Your task to perform on an android device: open app "Messenger Lite" (install if not already installed) and enter user name: "cataclysmic@outlook.com" and password: "victoriously" Image 0: 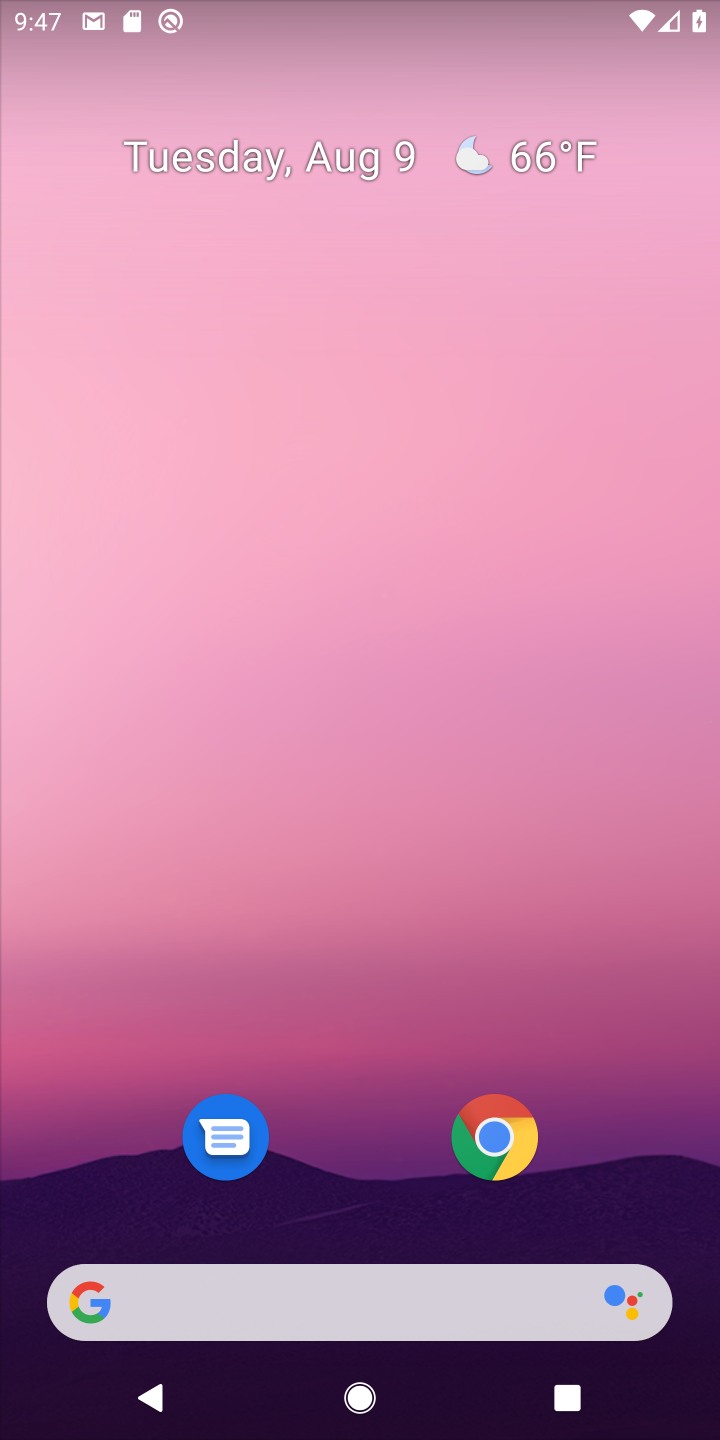
Step 0: drag from (400, 655) to (434, 391)
Your task to perform on an android device: open app "Messenger Lite" (install if not already installed) and enter user name: "cataclysmic@outlook.com" and password: "victoriously" Image 1: 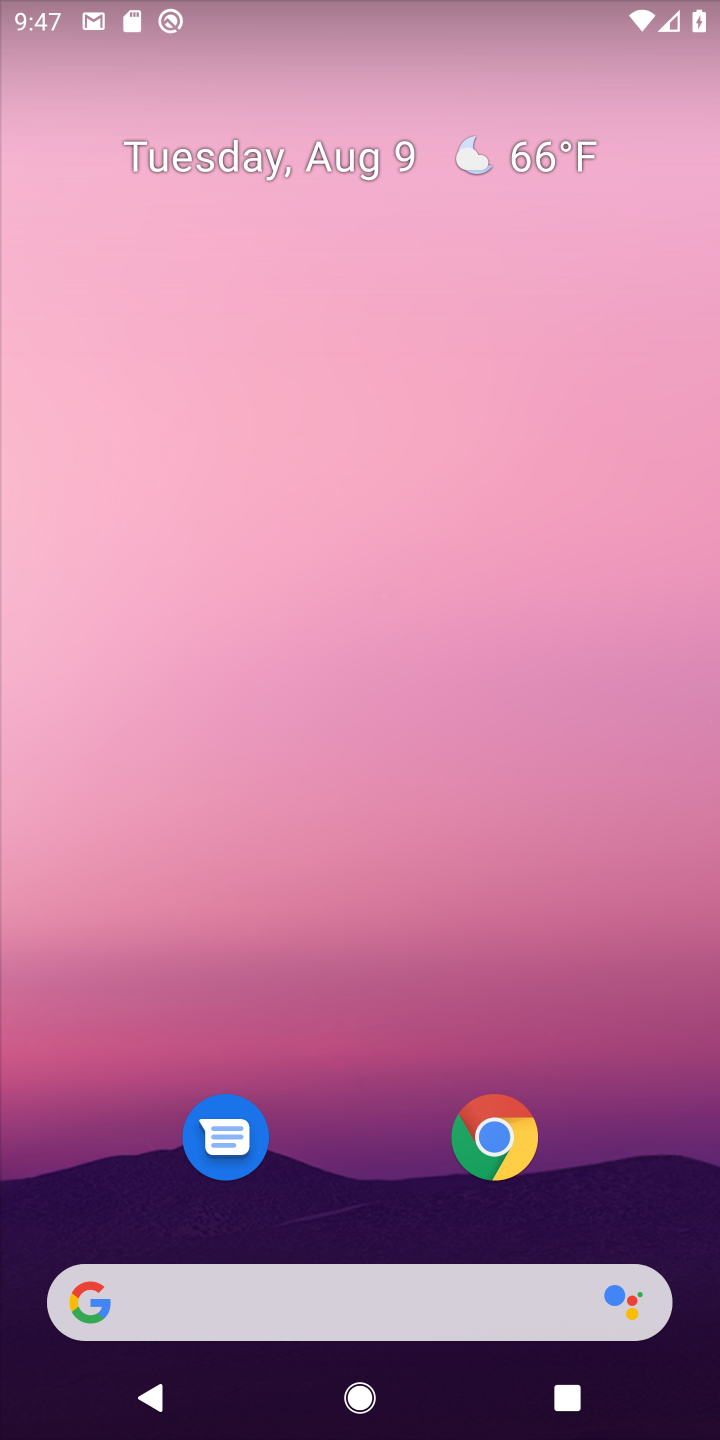
Step 1: drag from (331, 1087) to (416, 352)
Your task to perform on an android device: open app "Messenger Lite" (install if not already installed) and enter user name: "cataclysmic@outlook.com" and password: "victoriously" Image 2: 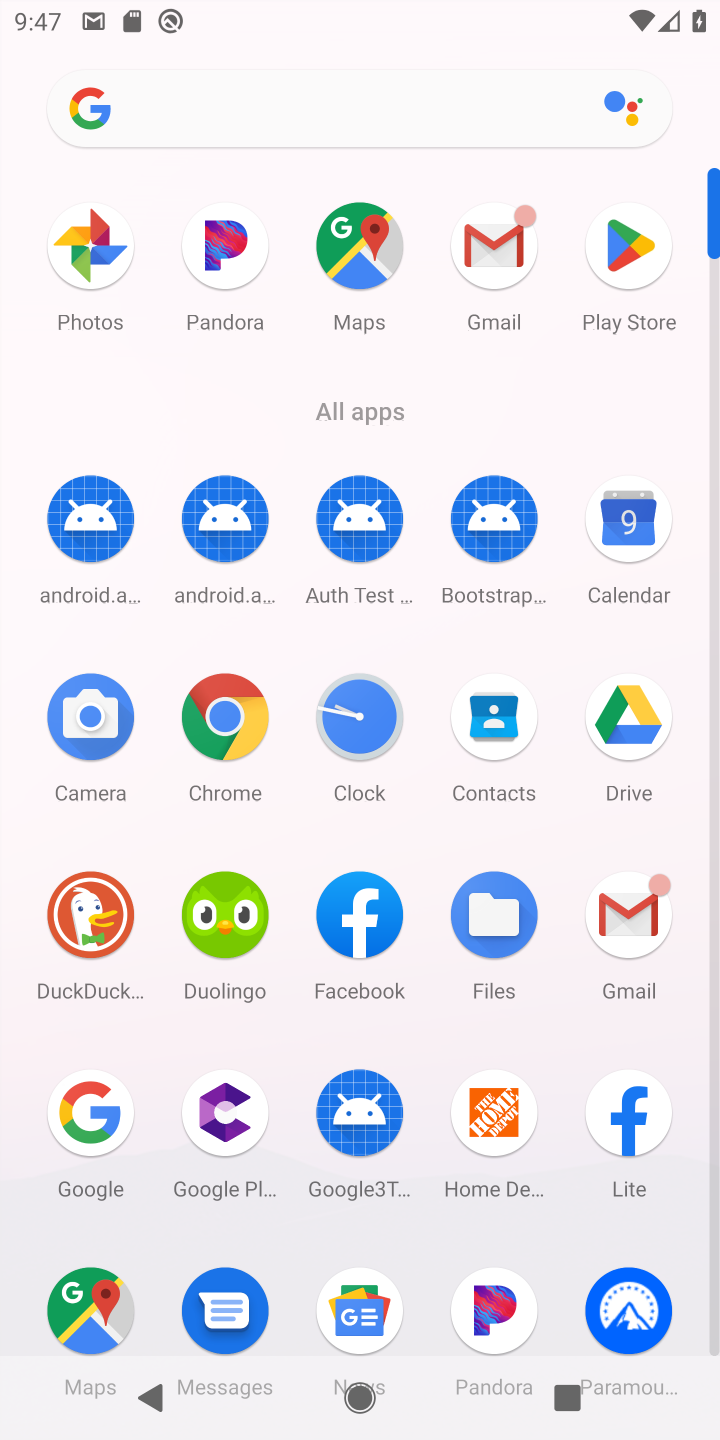
Step 2: click (626, 281)
Your task to perform on an android device: open app "Messenger Lite" (install if not already installed) and enter user name: "cataclysmic@outlook.com" and password: "victoriously" Image 3: 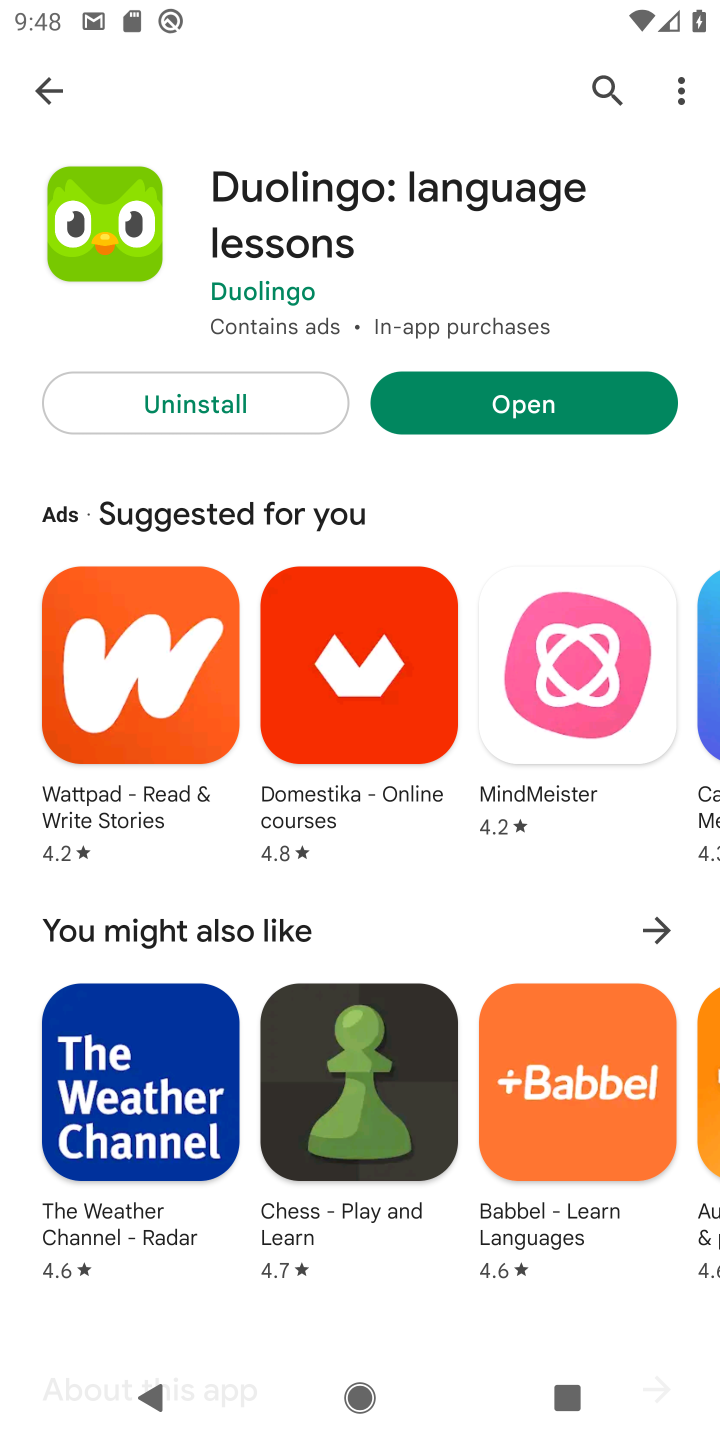
Step 3: click (608, 83)
Your task to perform on an android device: open app "Messenger Lite" (install if not already installed) and enter user name: "cataclysmic@outlook.com" and password: "victoriously" Image 4: 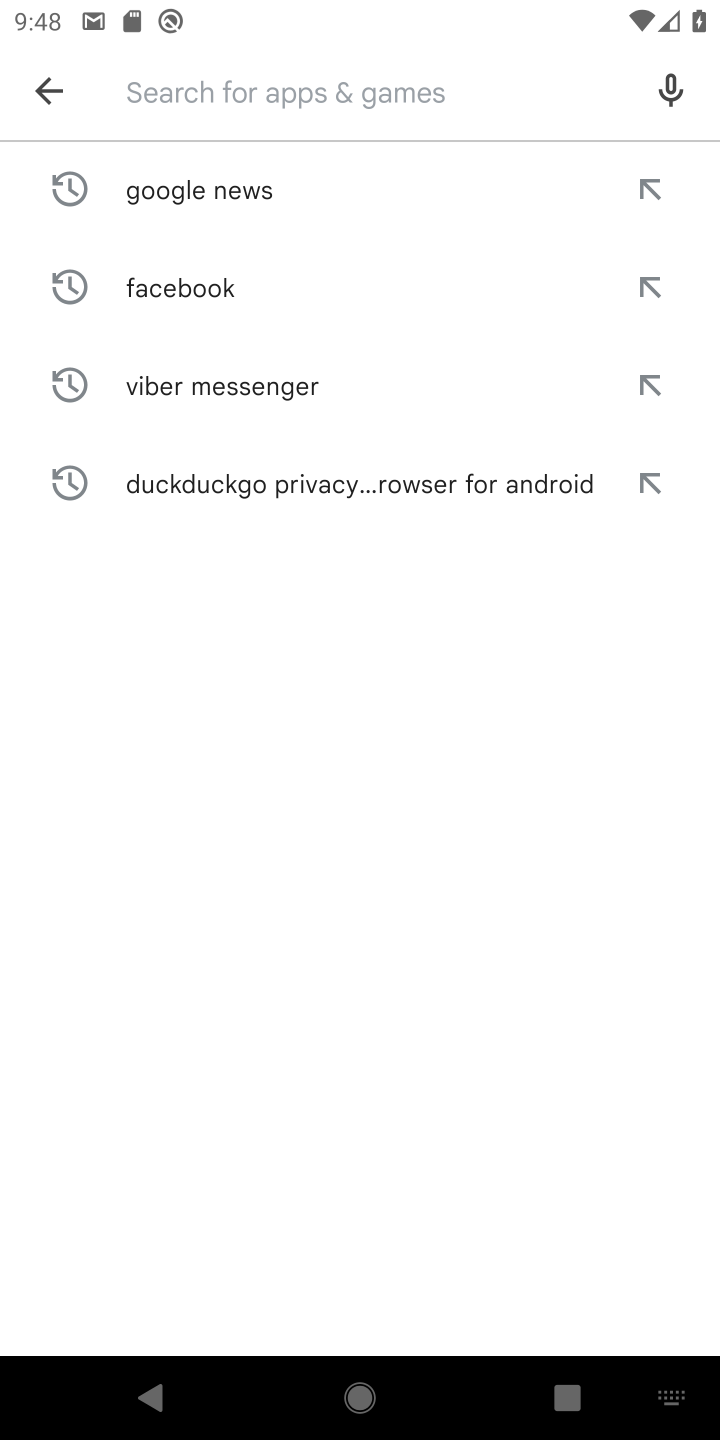
Step 4: type "Messenger Lite"
Your task to perform on an android device: open app "Messenger Lite" (install if not already installed) and enter user name: "cataclysmic@outlook.com" and password: "victoriously" Image 5: 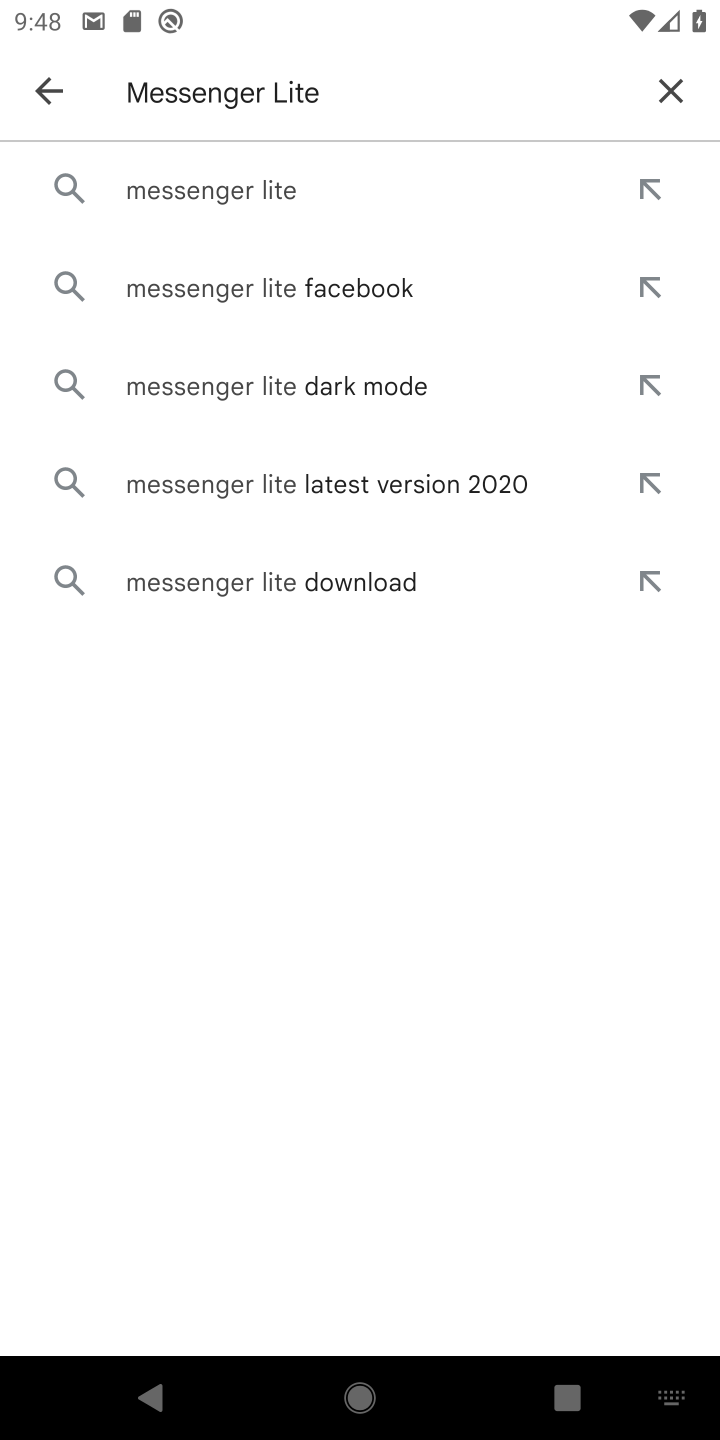
Step 5: click (286, 206)
Your task to perform on an android device: open app "Messenger Lite" (install if not already installed) and enter user name: "cataclysmic@outlook.com" and password: "victoriously" Image 6: 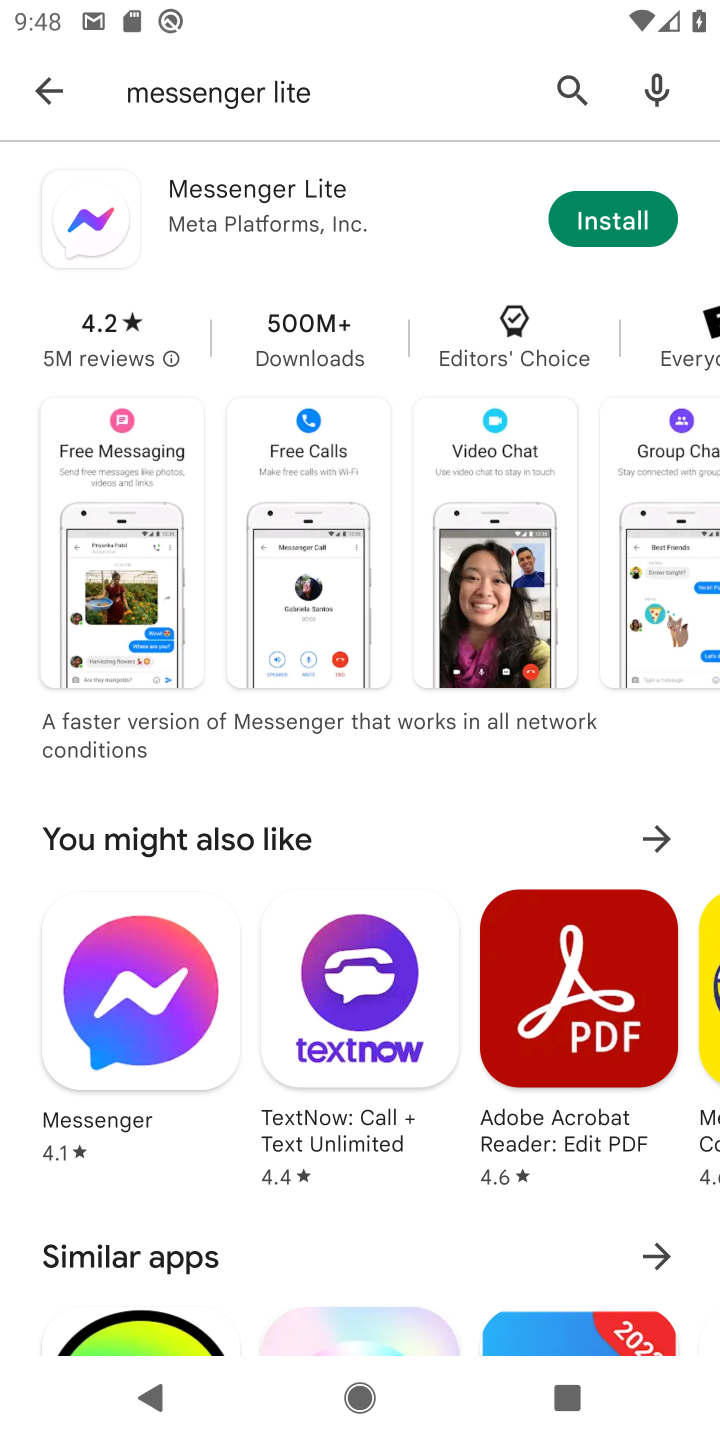
Step 6: click (638, 197)
Your task to perform on an android device: open app "Messenger Lite" (install if not already installed) and enter user name: "cataclysmic@outlook.com" and password: "victoriously" Image 7: 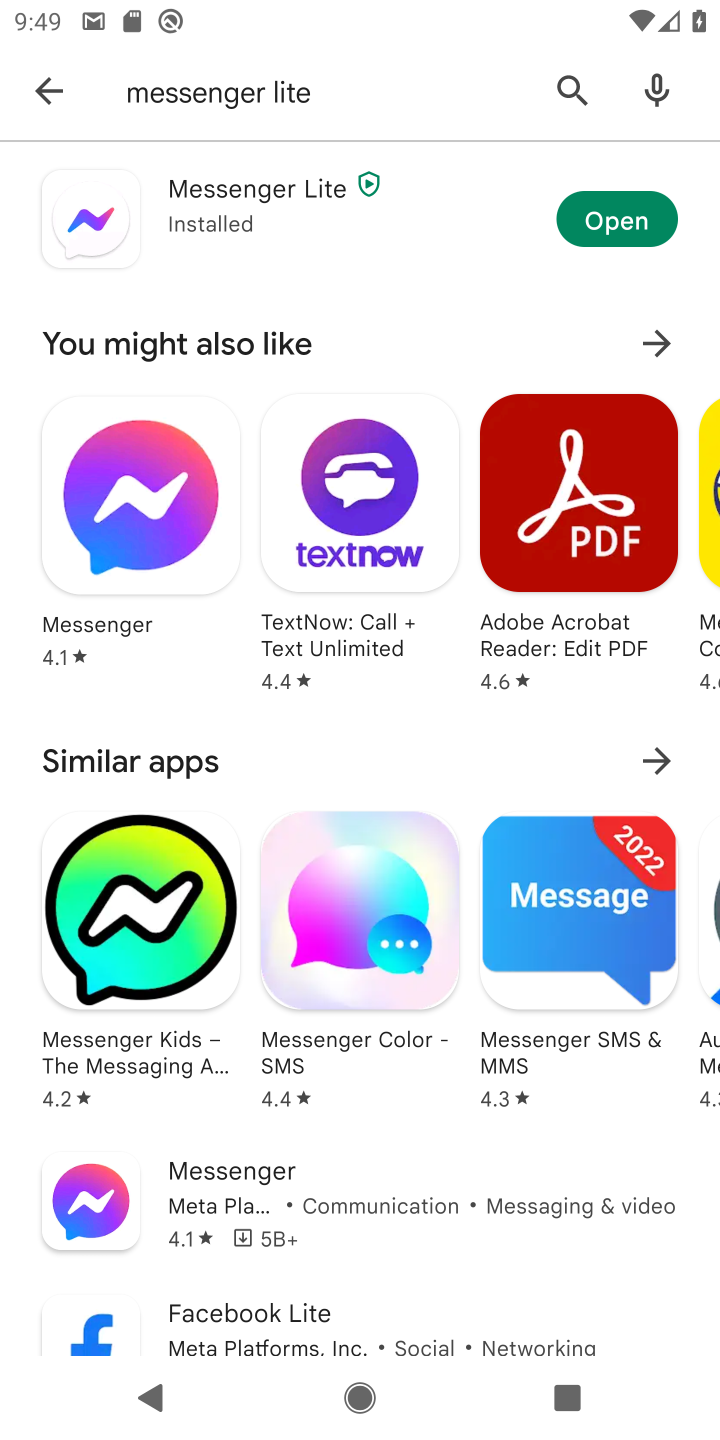
Step 7: click (623, 220)
Your task to perform on an android device: open app "Messenger Lite" (install if not already installed) and enter user name: "cataclysmic@outlook.com" and password: "victoriously" Image 8: 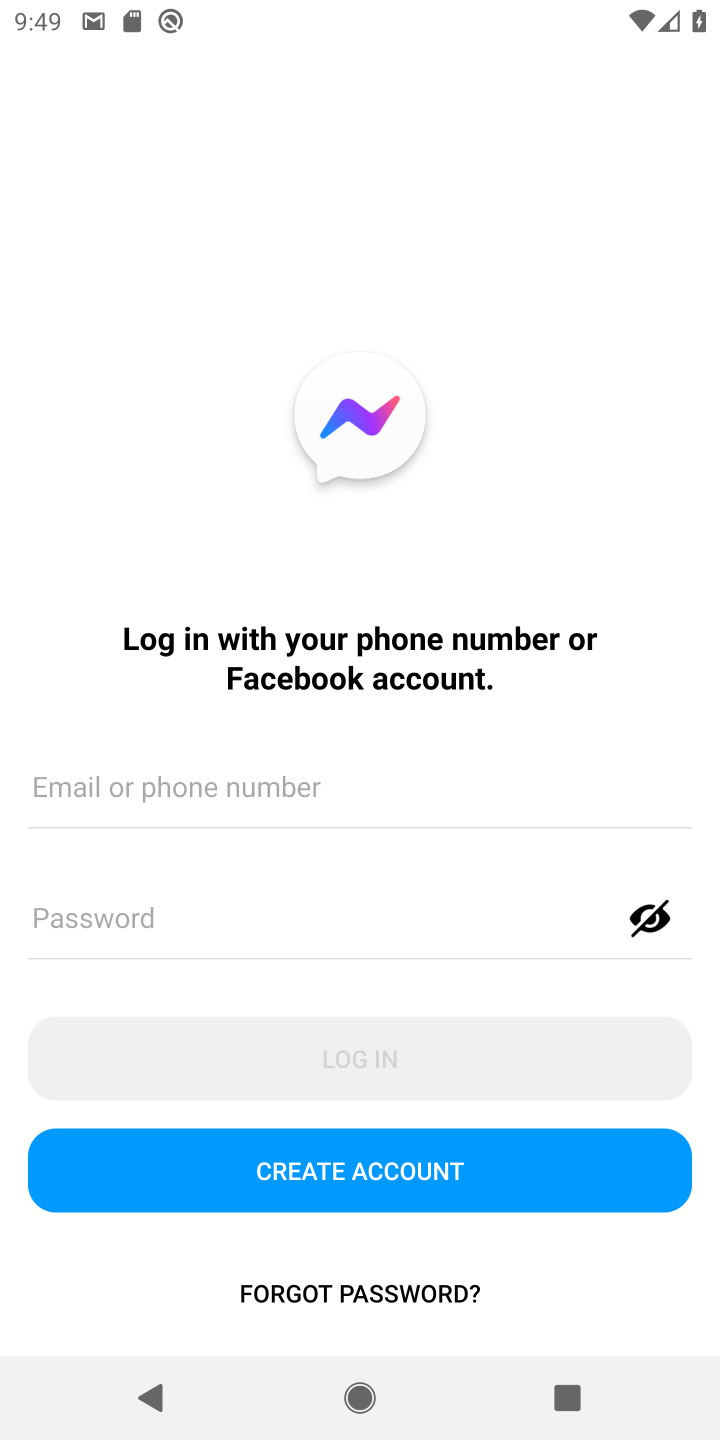
Step 8: task complete